Your task to perform on an android device: Show me the alarms in the clock app Image 0: 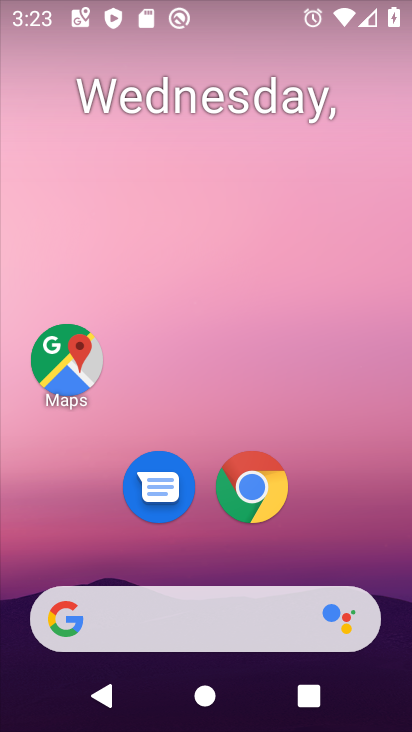
Step 0: drag from (366, 525) to (378, 145)
Your task to perform on an android device: Show me the alarms in the clock app Image 1: 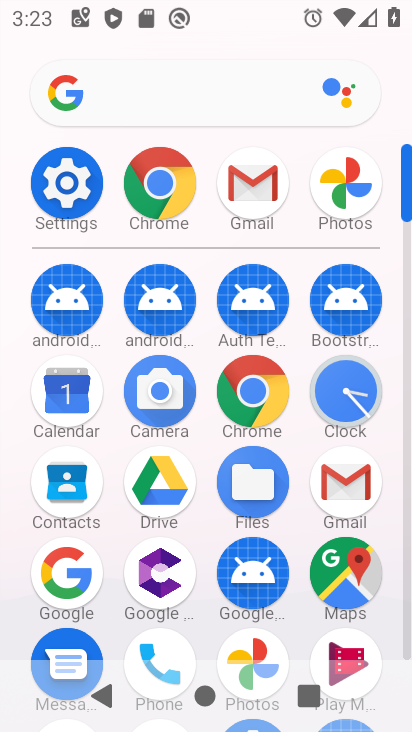
Step 1: click (348, 396)
Your task to perform on an android device: Show me the alarms in the clock app Image 2: 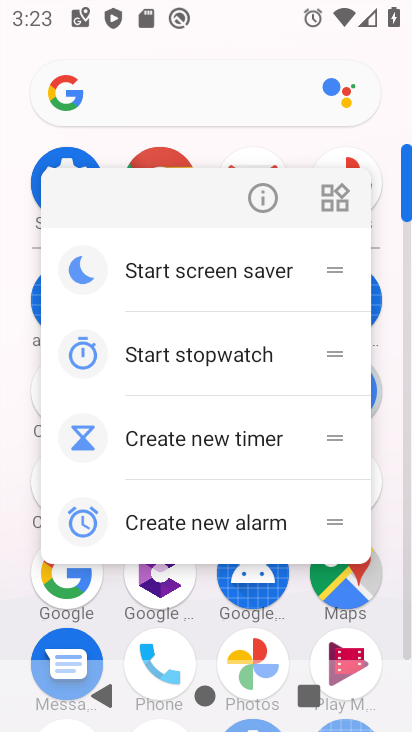
Step 2: click (385, 400)
Your task to perform on an android device: Show me the alarms in the clock app Image 3: 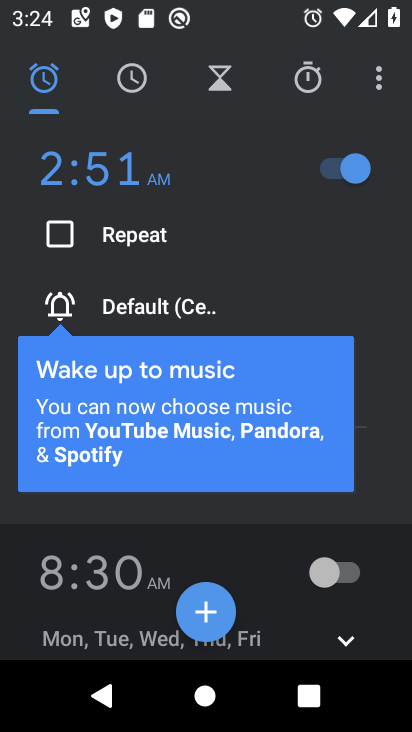
Step 3: task complete